Your task to perform on an android device: Open a new Chrome window Image 0: 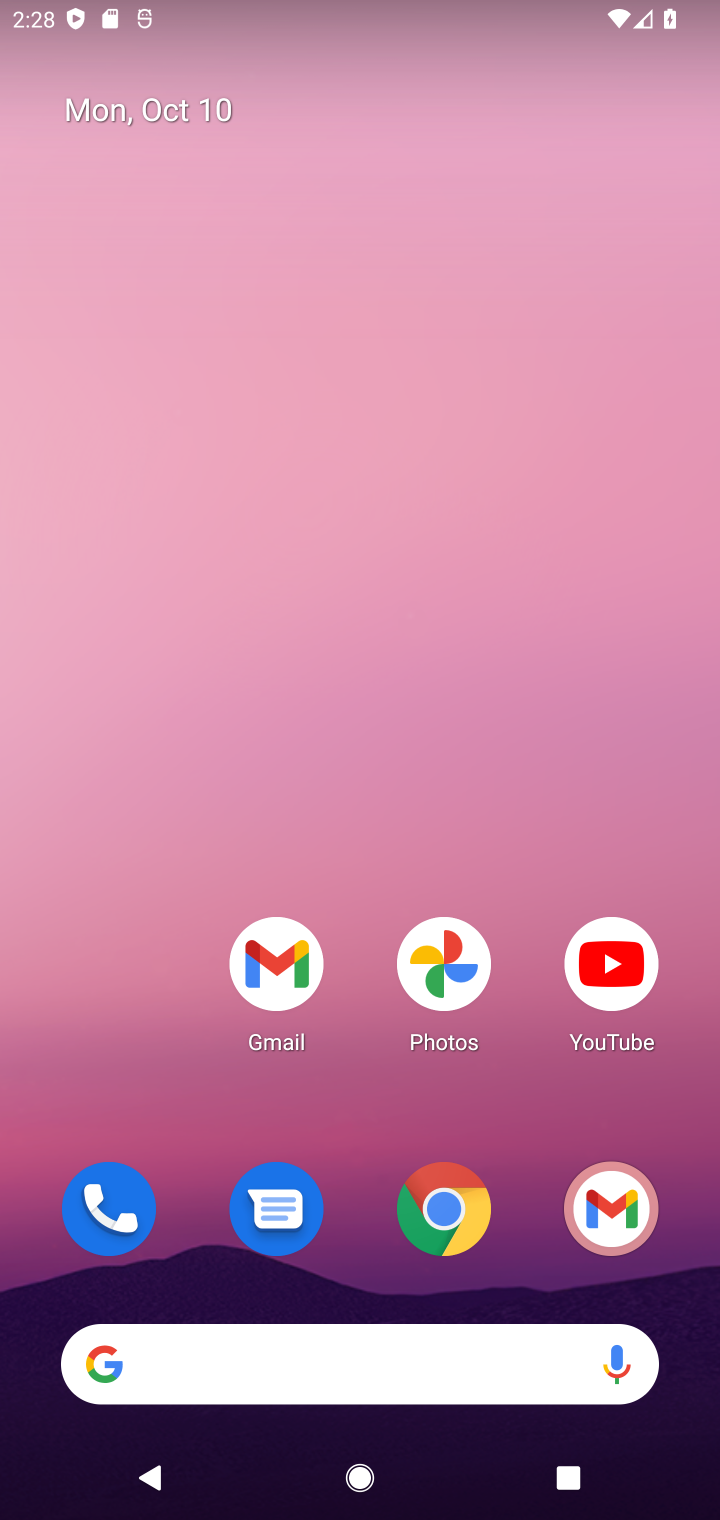
Step 0: click (472, 1198)
Your task to perform on an android device: Open a new Chrome window Image 1: 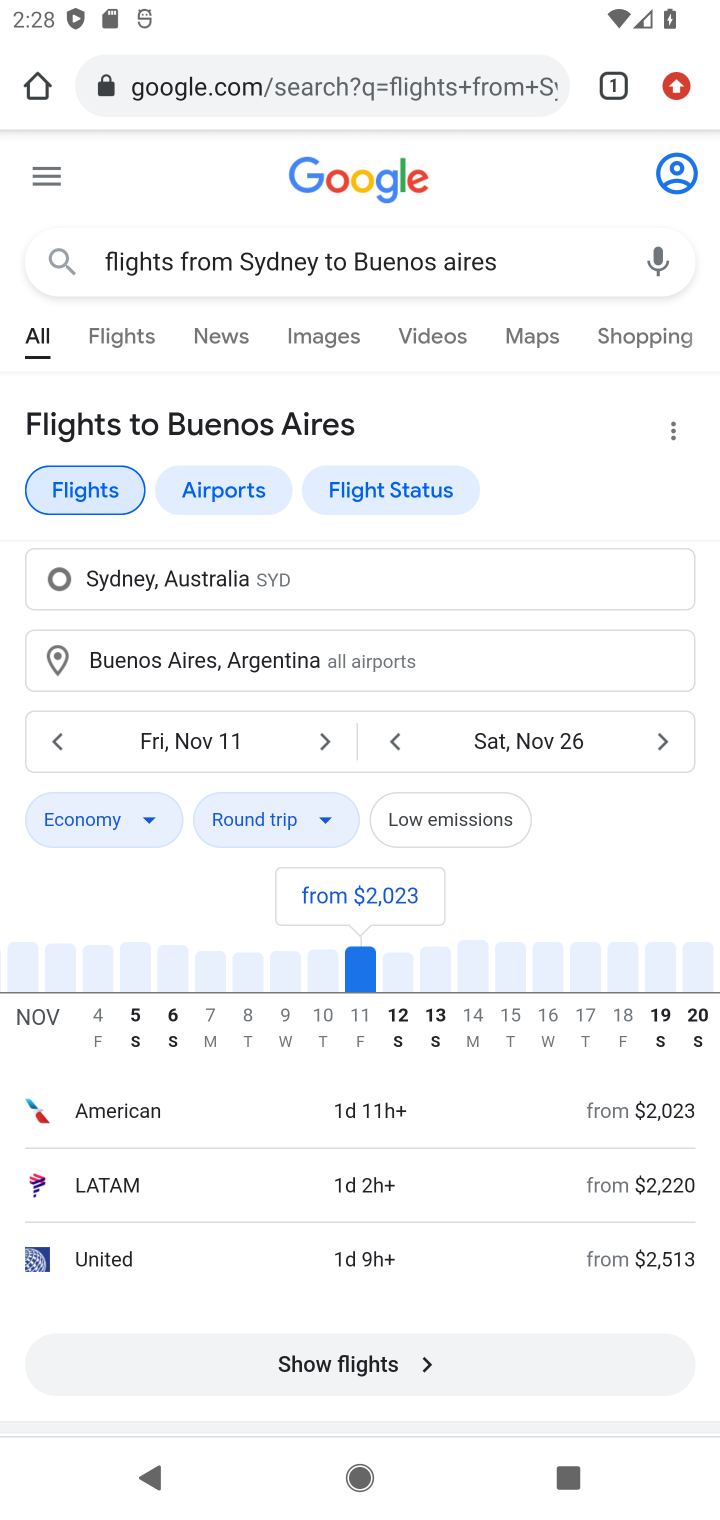
Step 1: click (625, 105)
Your task to perform on an android device: Open a new Chrome window Image 2: 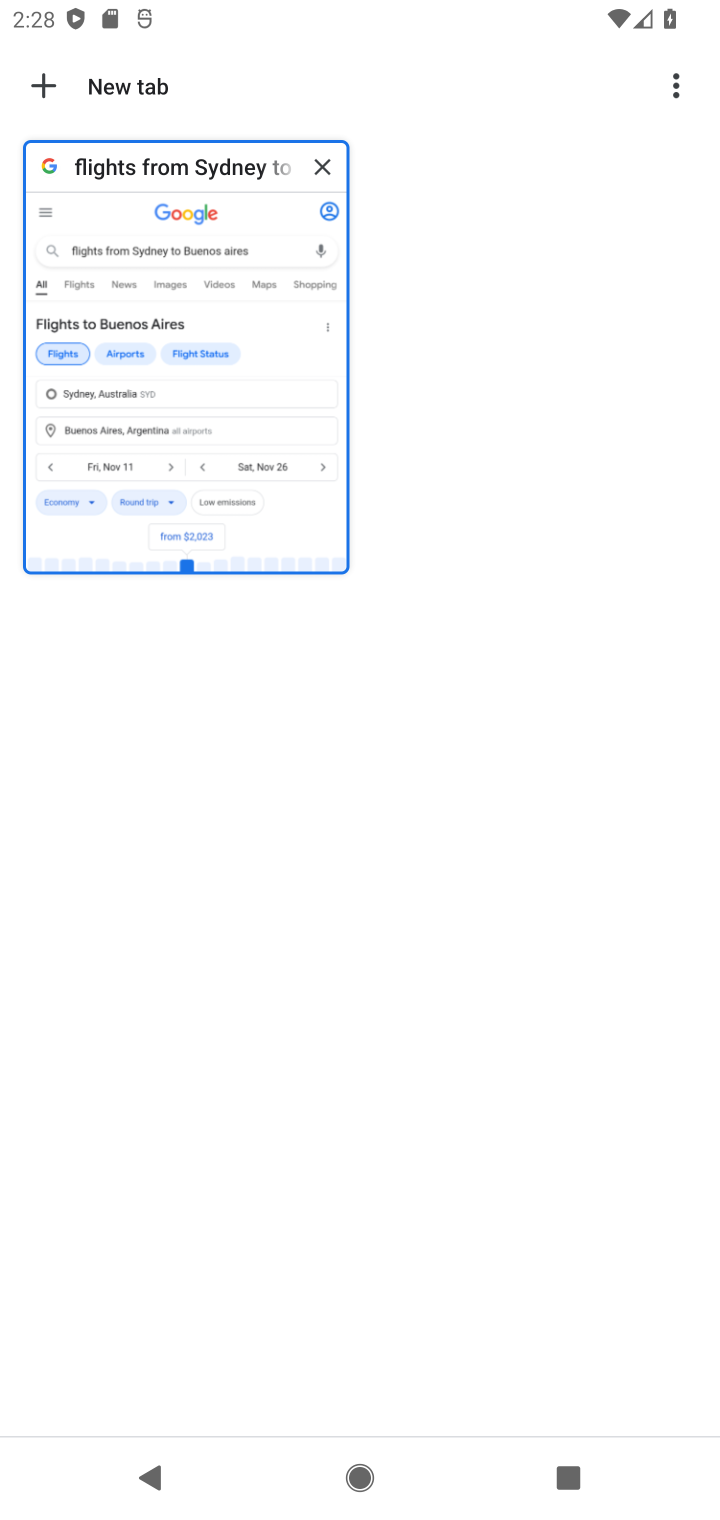
Step 2: click (42, 81)
Your task to perform on an android device: Open a new Chrome window Image 3: 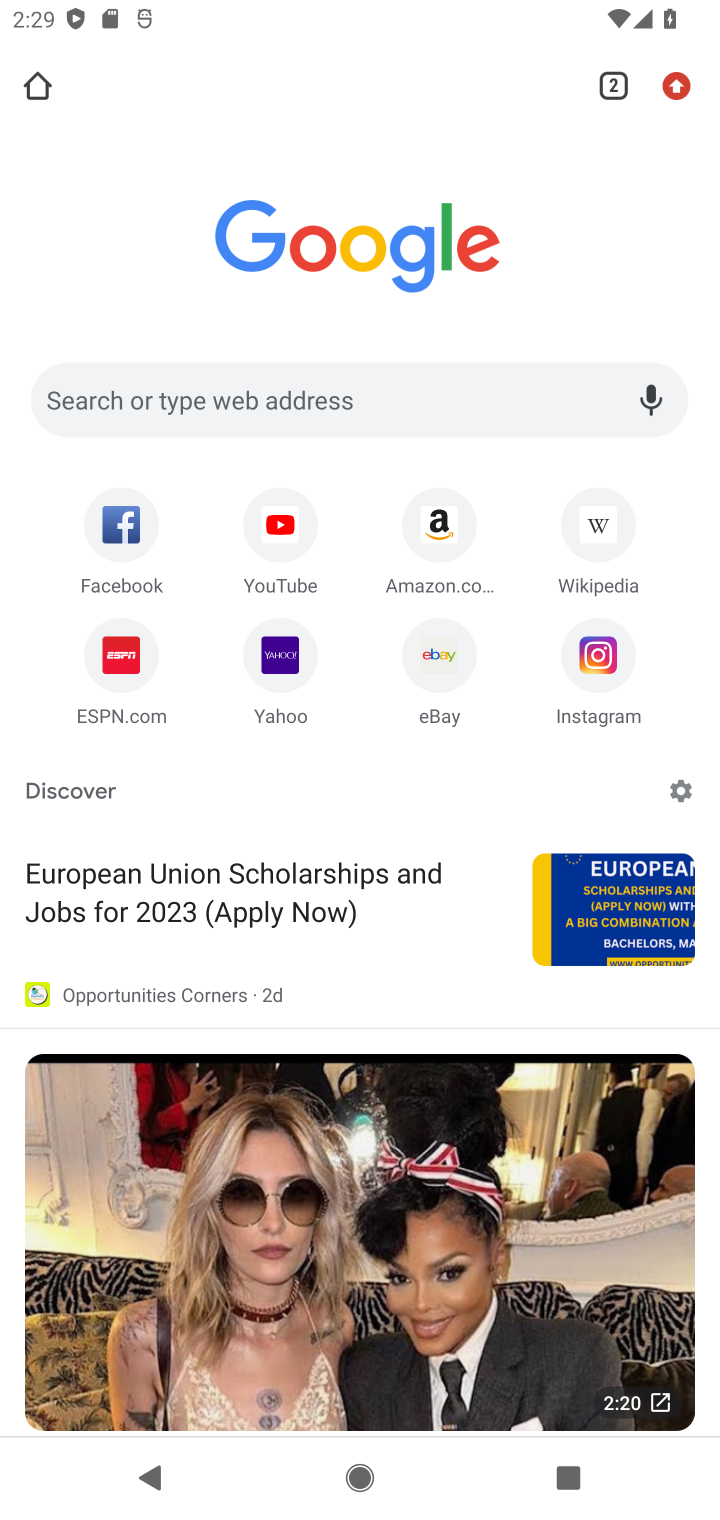
Step 3: task complete